Your task to perform on an android device: refresh tabs in the chrome app Image 0: 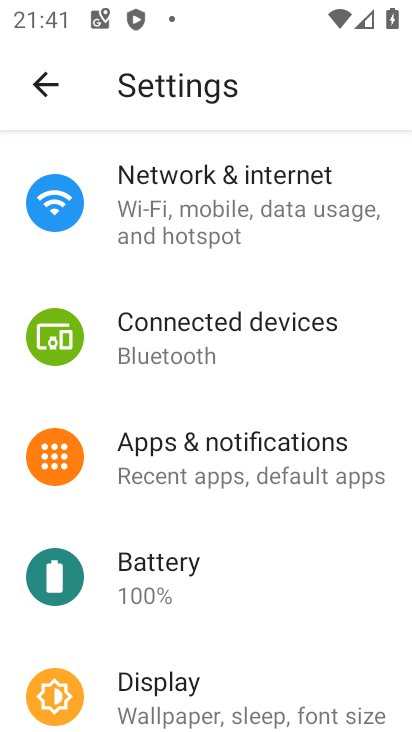
Step 0: press home button
Your task to perform on an android device: refresh tabs in the chrome app Image 1: 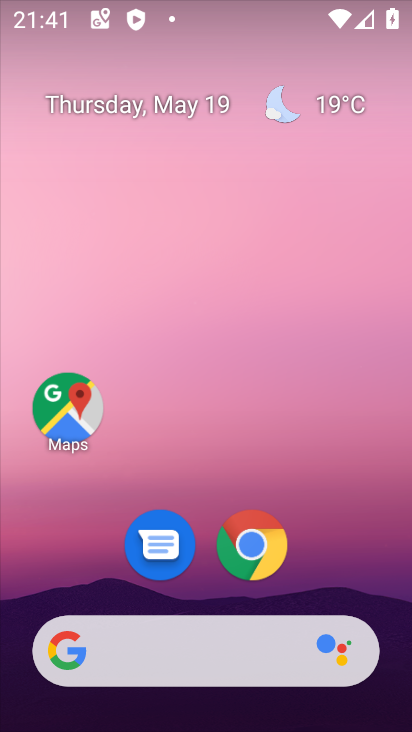
Step 1: click (279, 542)
Your task to perform on an android device: refresh tabs in the chrome app Image 2: 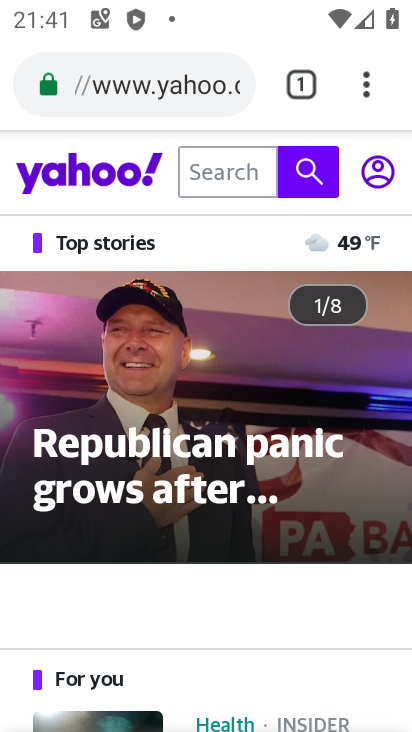
Step 2: click (363, 89)
Your task to perform on an android device: refresh tabs in the chrome app Image 3: 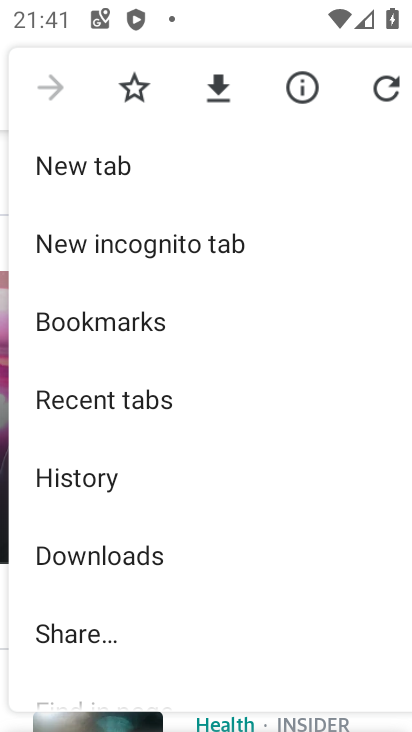
Step 3: drag from (166, 588) to (192, 291)
Your task to perform on an android device: refresh tabs in the chrome app Image 4: 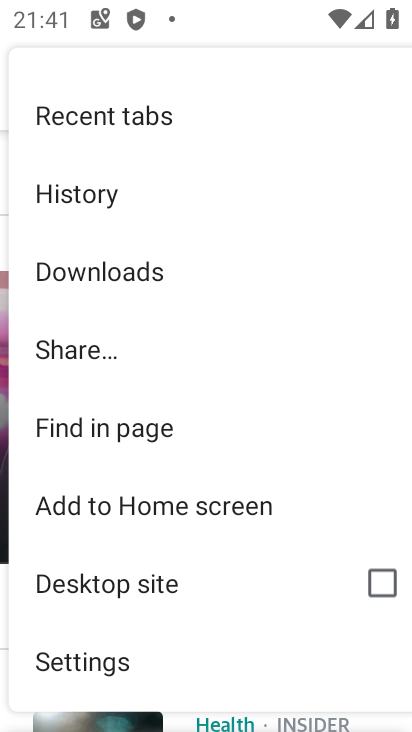
Step 4: click (174, 651)
Your task to perform on an android device: refresh tabs in the chrome app Image 5: 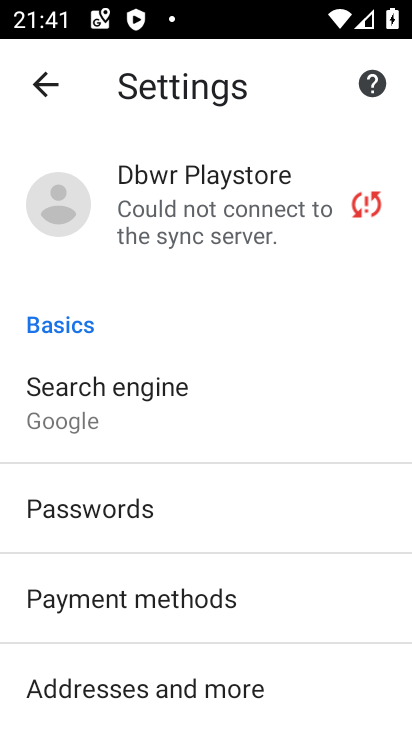
Step 5: click (50, 83)
Your task to perform on an android device: refresh tabs in the chrome app Image 6: 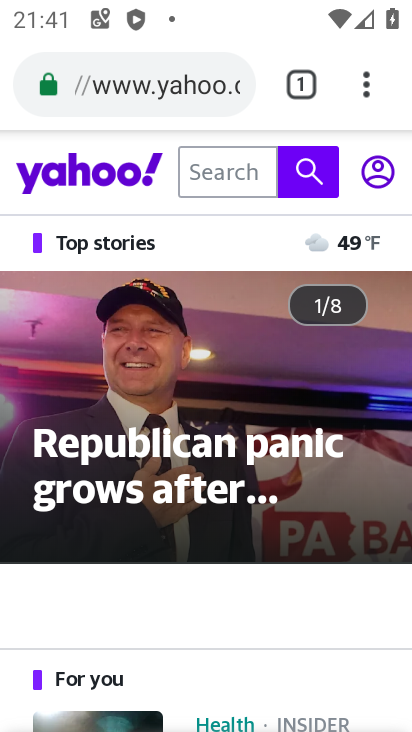
Step 6: click (374, 74)
Your task to perform on an android device: refresh tabs in the chrome app Image 7: 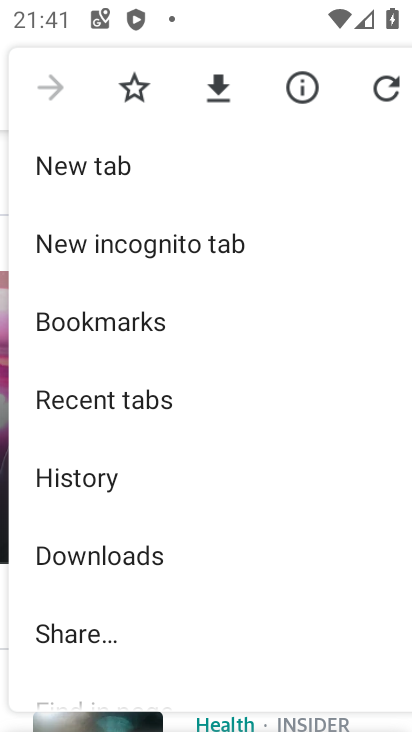
Step 7: click (374, 74)
Your task to perform on an android device: refresh tabs in the chrome app Image 8: 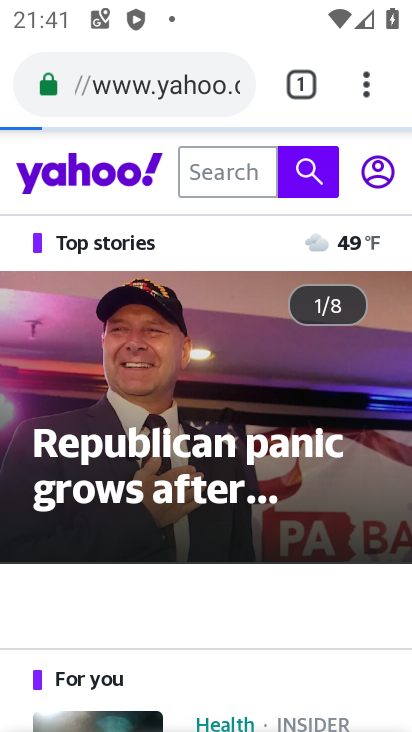
Step 8: task complete